Your task to perform on an android device: check google app version Image 0: 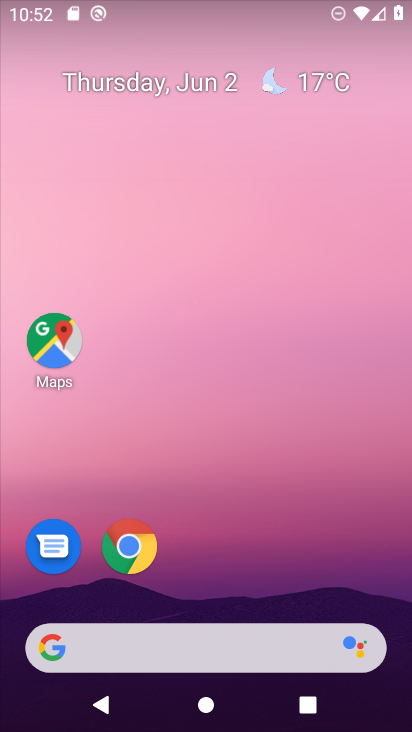
Step 0: drag from (257, 547) to (207, 35)
Your task to perform on an android device: check google app version Image 1: 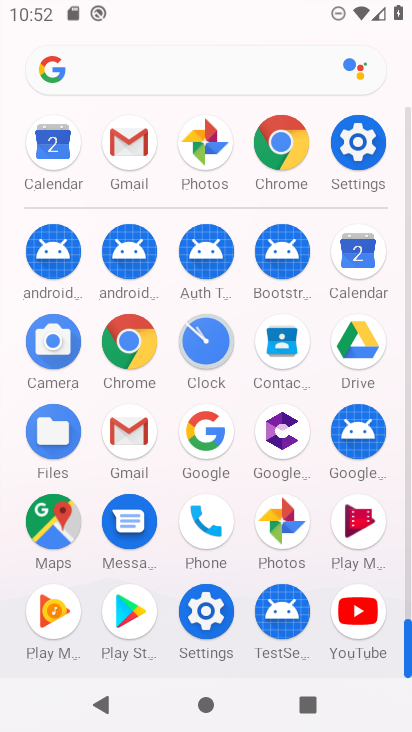
Step 1: click (209, 422)
Your task to perform on an android device: check google app version Image 2: 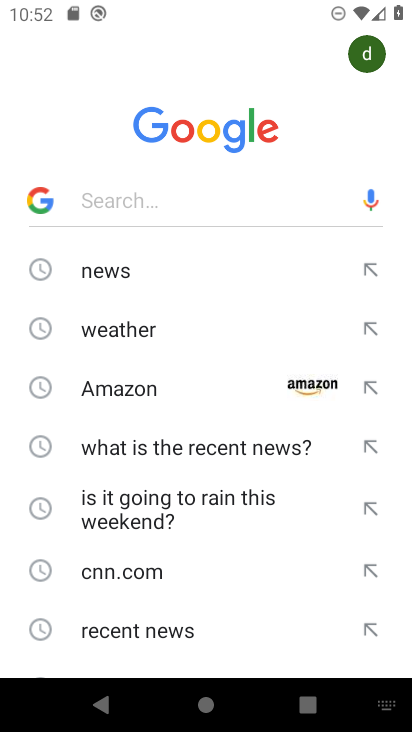
Step 2: click (362, 53)
Your task to perform on an android device: check google app version Image 3: 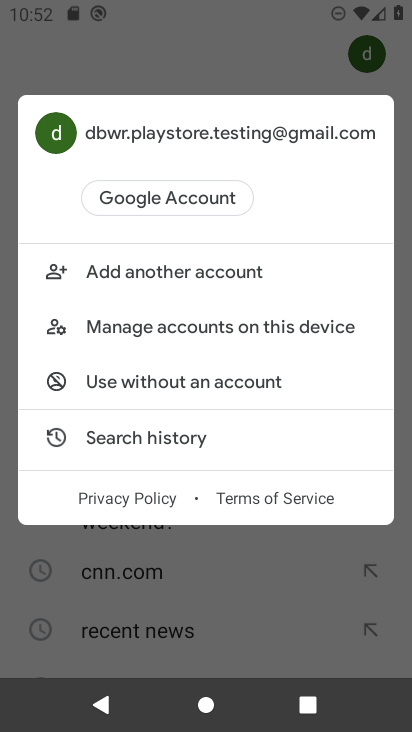
Step 3: click (70, 547)
Your task to perform on an android device: check google app version Image 4: 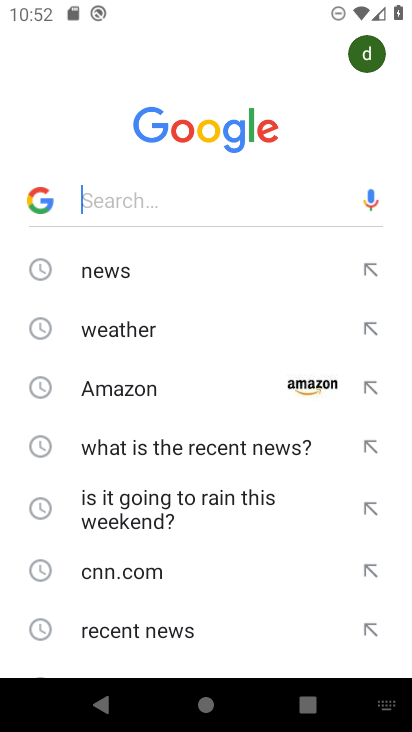
Step 4: drag from (235, 563) to (216, 227)
Your task to perform on an android device: check google app version Image 5: 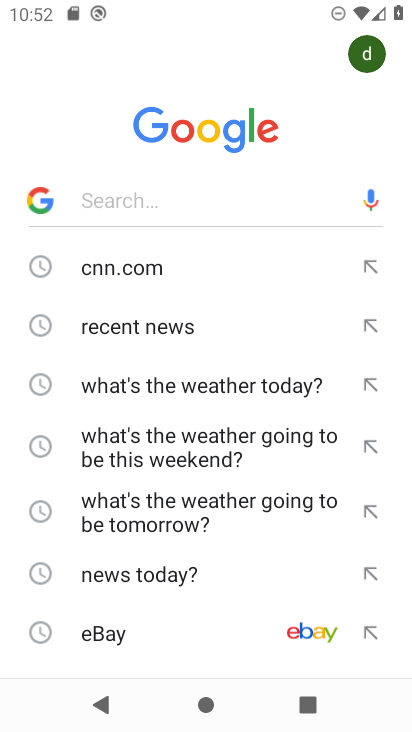
Step 5: drag from (255, 247) to (258, 617)
Your task to perform on an android device: check google app version Image 6: 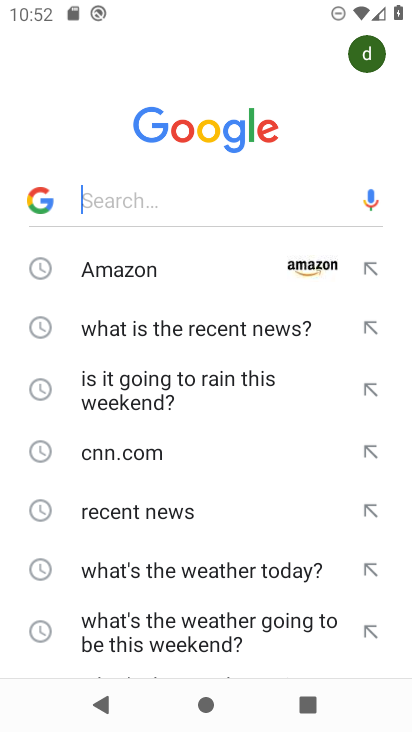
Step 6: drag from (229, 167) to (265, 576)
Your task to perform on an android device: check google app version Image 7: 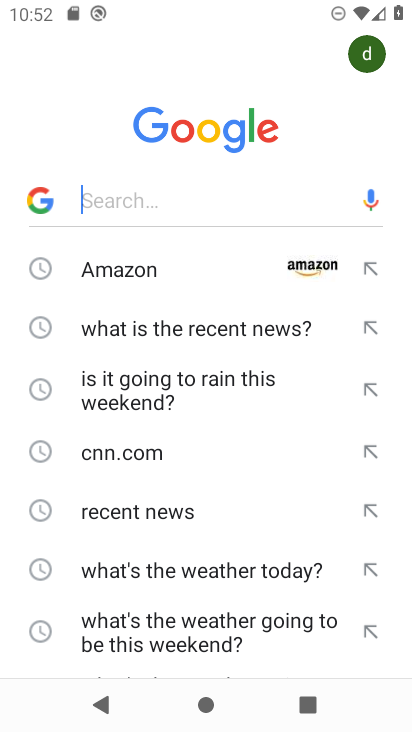
Step 7: drag from (251, 601) to (235, 121)
Your task to perform on an android device: check google app version Image 8: 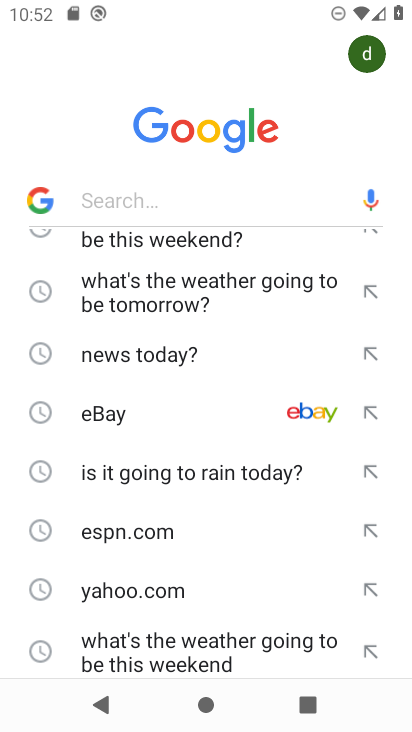
Step 8: press back button
Your task to perform on an android device: check google app version Image 9: 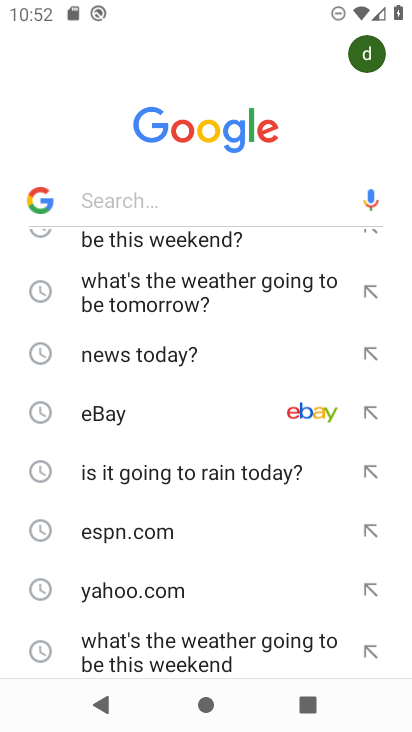
Step 9: press back button
Your task to perform on an android device: check google app version Image 10: 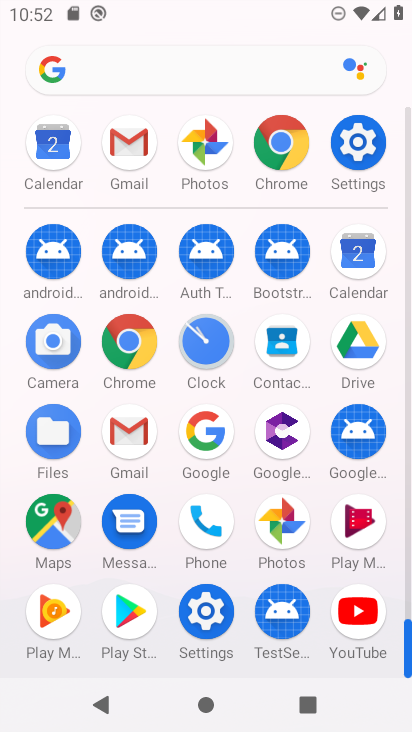
Step 10: click (201, 428)
Your task to perform on an android device: check google app version Image 11: 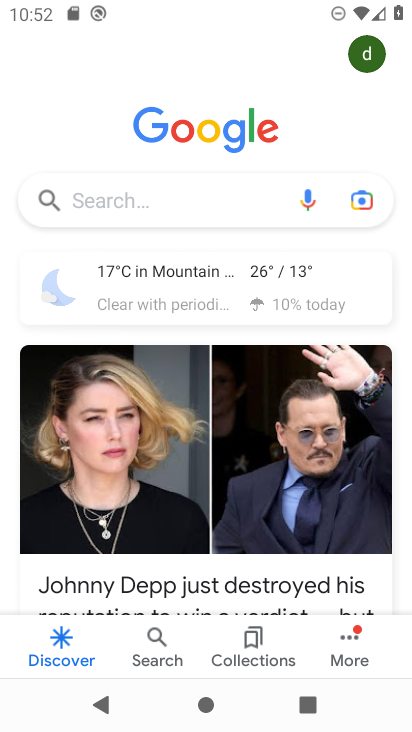
Step 11: drag from (303, 559) to (311, 366)
Your task to perform on an android device: check google app version Image 12: 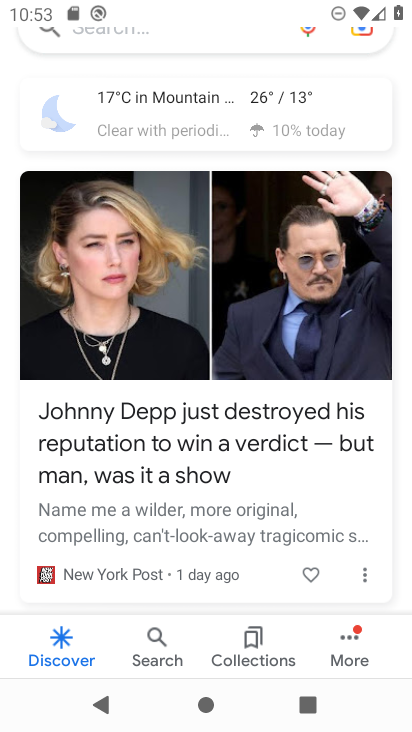
Step 12: click (345, 637)
Your task to perform on an android device: check google app version Image 13: 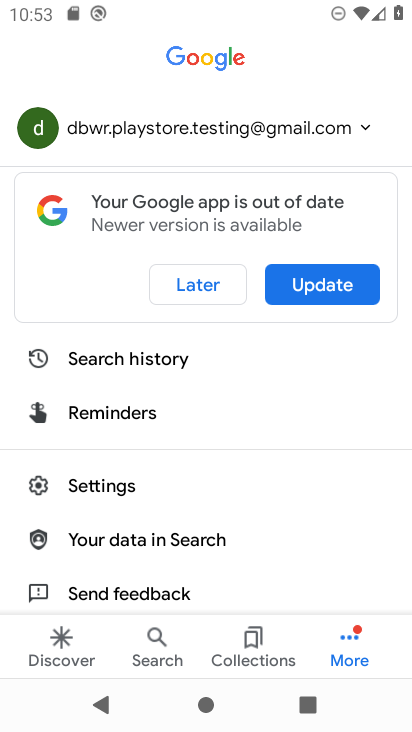
Step 13: click (107, 482)
Your task to perform on an android device: check google app version Image 14: 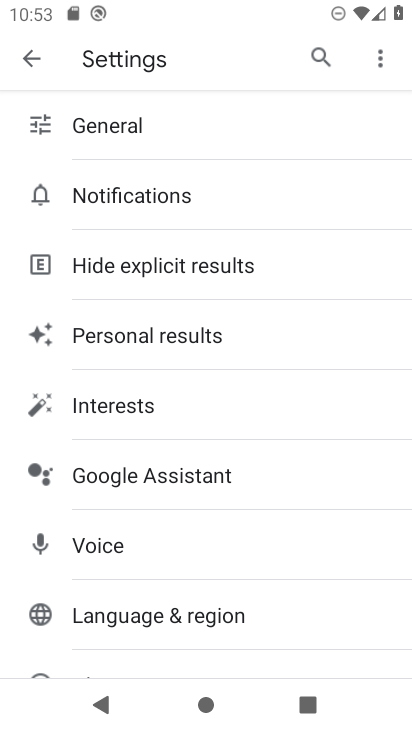
Step 14: drag from (178, 510) to (215, 171)
Your task to perform on an android device: check google app version Image 15: 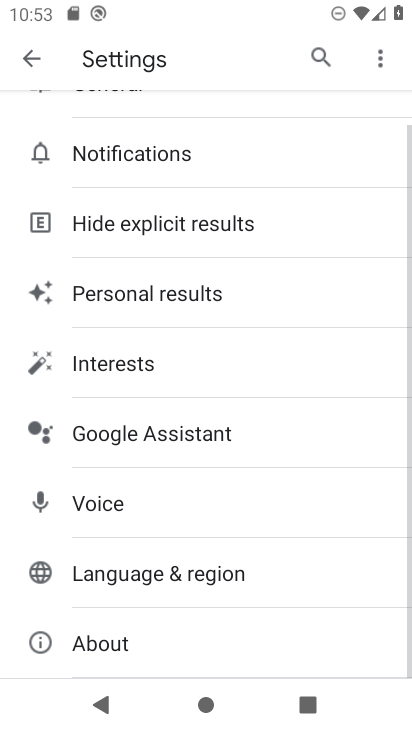
Step 15: click (111, 632)
Your task to perform on an android device: check google app version Image 16: 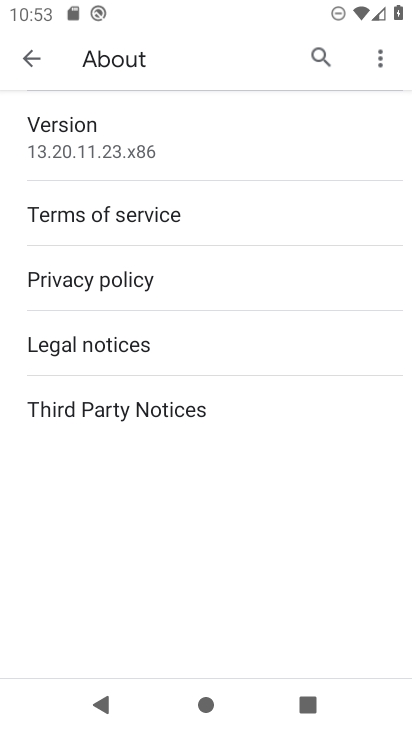
Step 16: task complete